Your task to perform on an android device: Open location settings Image 0: 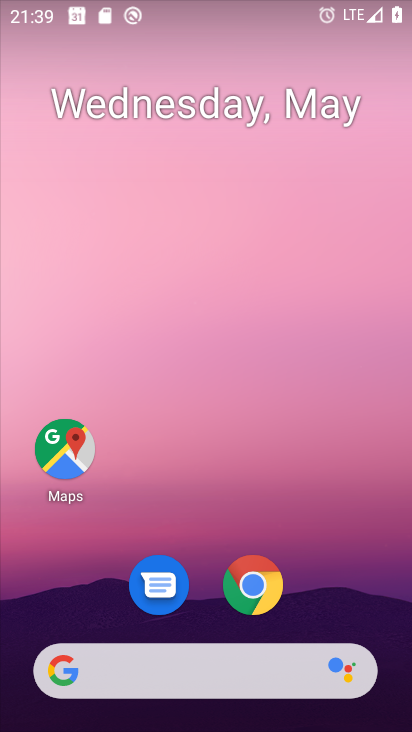
Step 0: drag from (350, 569) to (263, 27)
Your task to perform on an android device: Open location settings Image 1: 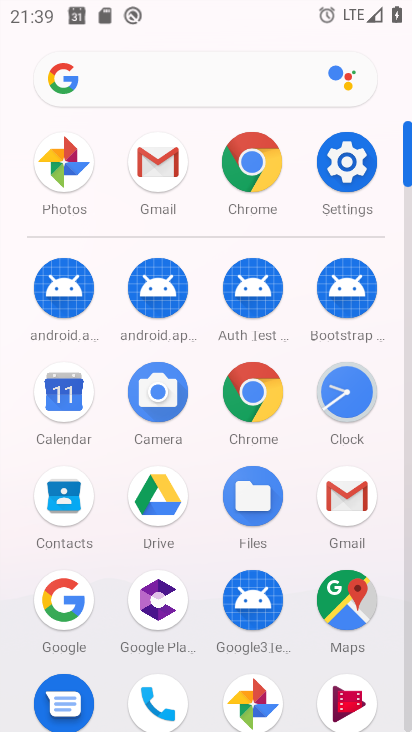
Step 1: click (328, 160)
Your task to perform on an android device: Open location settings Image 2: 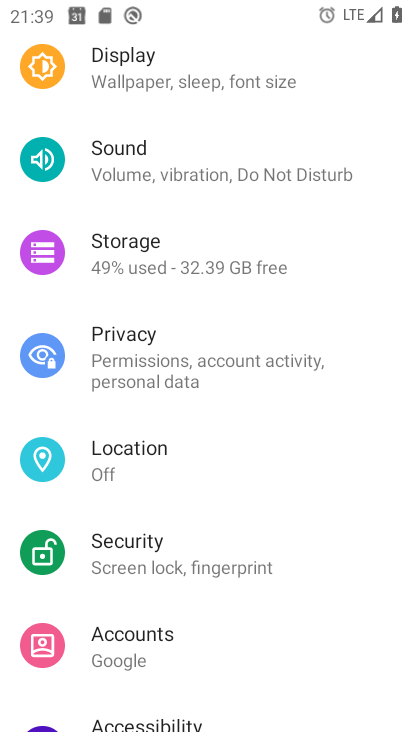
Step 2: click (229, 469)
Your task to perform on an android device: Open location settings Image 3: 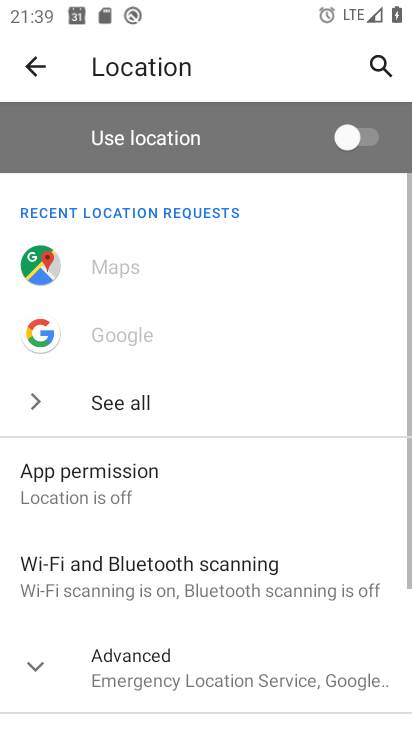
Step 3: task complete